Your task to perform on an android device: turn pop-ups on in chrome Image 0: 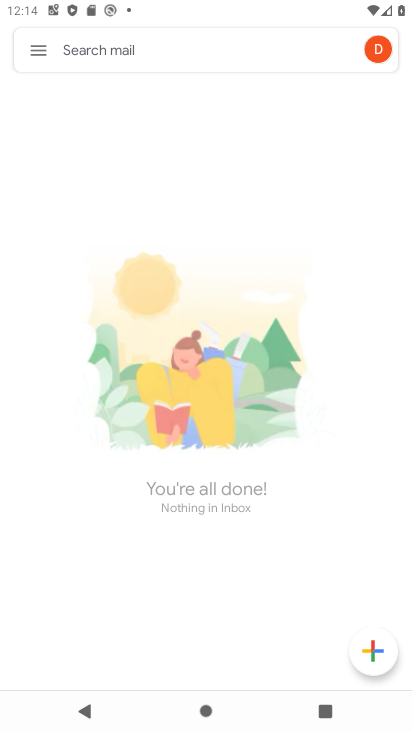
Step 0: press home button
Your task to perform on an android device: turn pop-ups on in chrome Image 1: 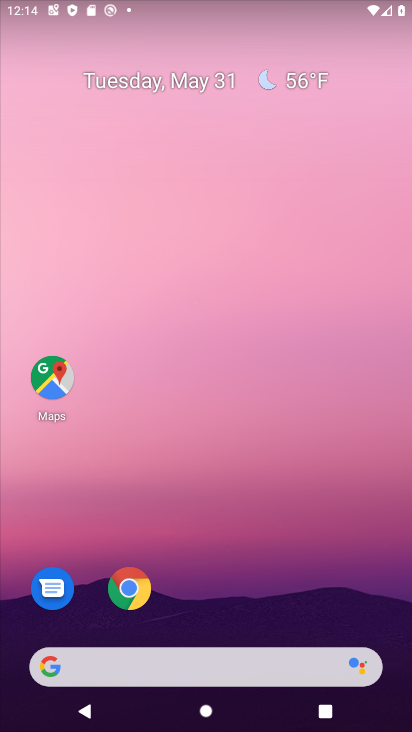
Step 1: click (129, 598)
Your task to perform on an android device: turn pop-ups on in chrome Image 2: 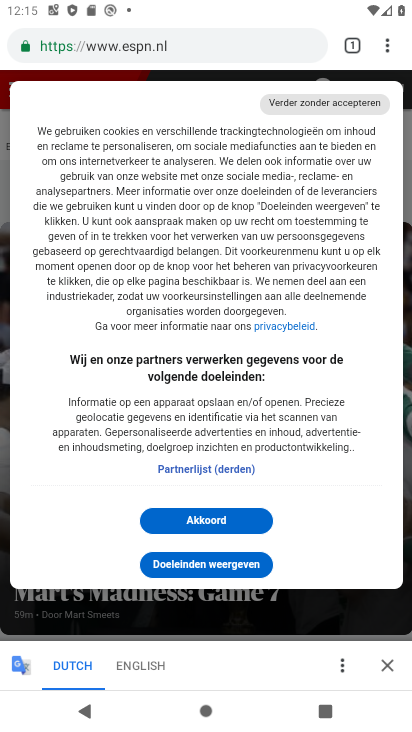
Step 2: click (390, 53)
Your task to perform on an android device: turn pop-ups on in chrome Image 3: 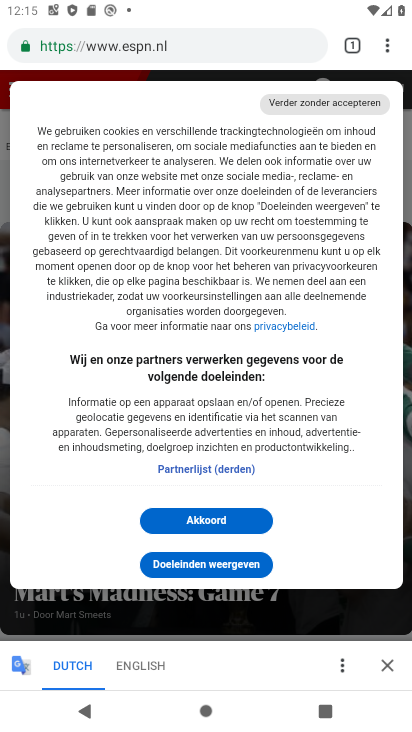
Step 3: click (383, 50)
Your task to perform on an android device: turn pop-ups on in chrome Image 4: 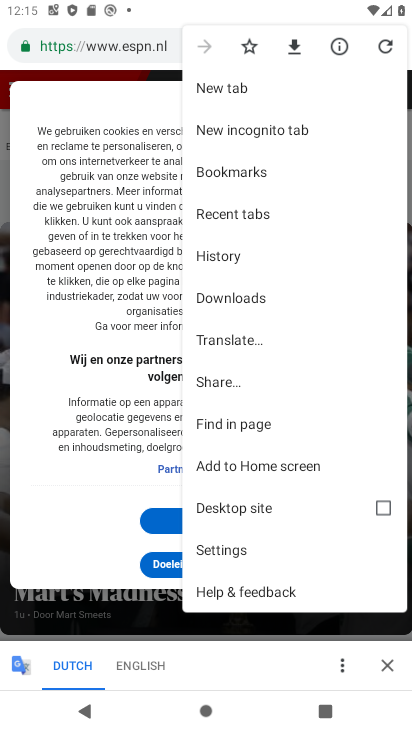
Step 4: click (230, 560)
Your task to perform on an android device: turn pop-ups on in chrome Image 5: 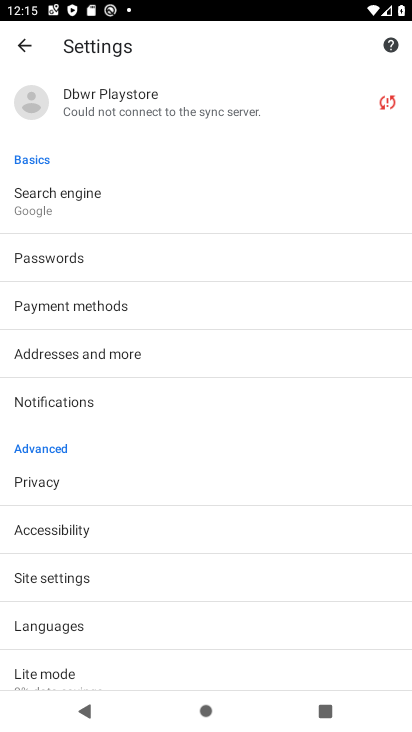
Step 5: drag from (75, 665) to (122, 247)
Your task to perform on an android device: turn pop-ups on in chrome Image 6: 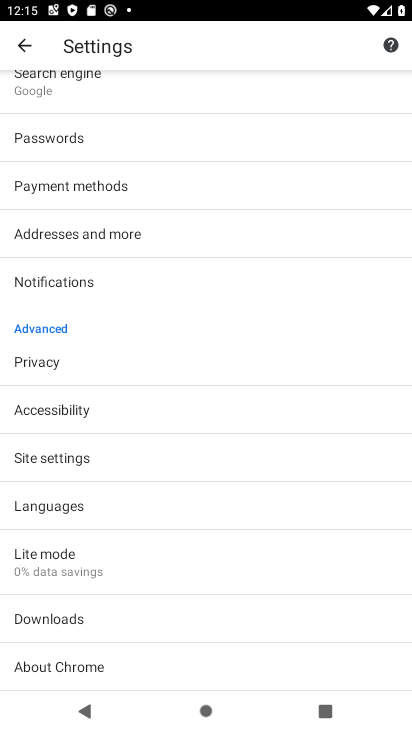
Step 6: drag from (130, 638) to (185, 305)
Your task to perform on an android device: turn pop-ups on in chrome Image 7: 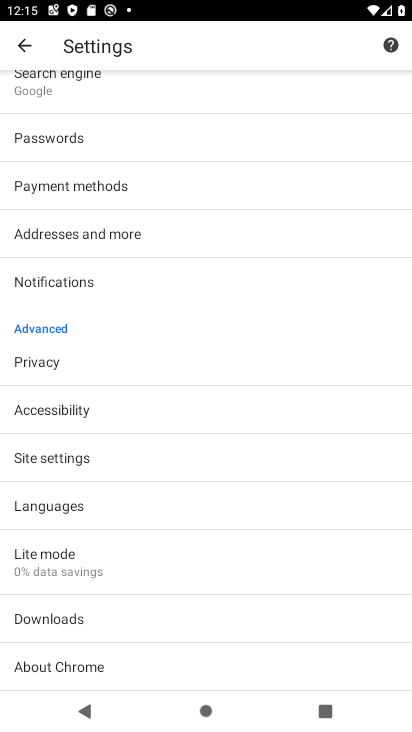
Step 7: drag from (86, 653) to (134, 190)
Your task to perform on an android device: turn pop-ups on in chrome Image 8: 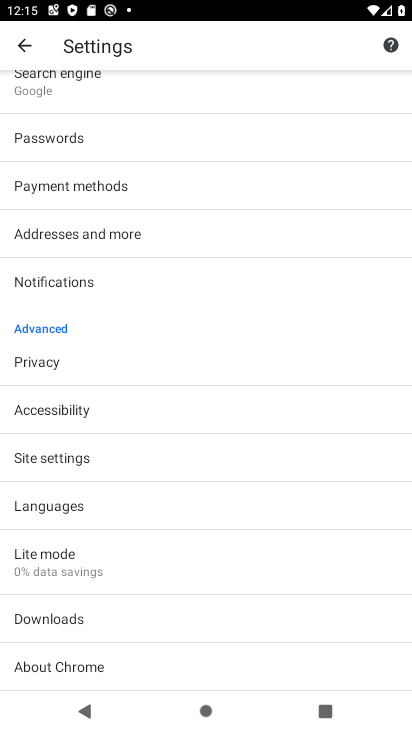
Step 8: click (61, 467)
Your task to perform on an android device: turn pop-ups on in chrome Image 9: 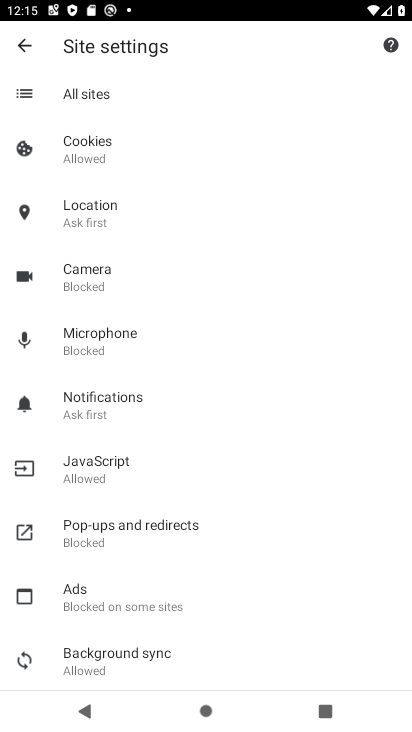
Step 9: click (107, 543)
Your task to perform on an android device: turn pop-ups on in chrome Image 10: 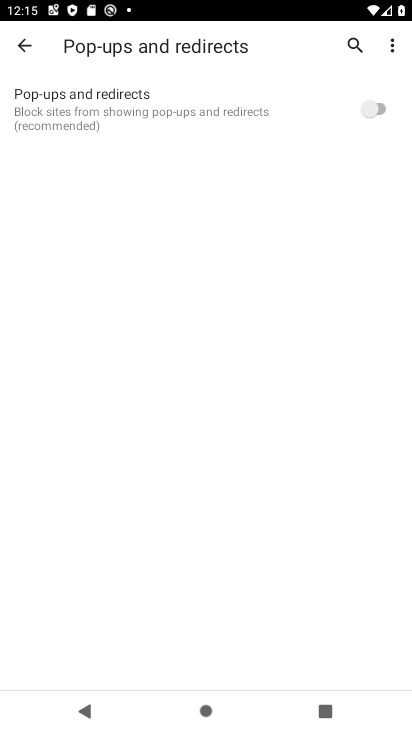
Step 10: click (383, 108)
Your task to perform on an android device: turn pop-ups on in chrome Image 11: 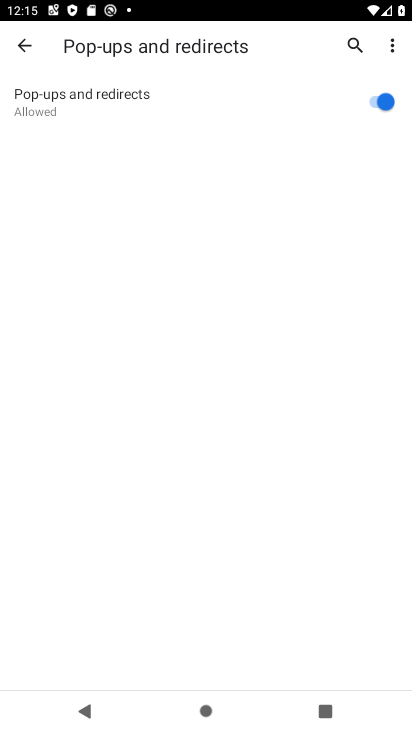
Step 11: task complete